Your task to perform on an android device: turn on sleep mode Image 0: 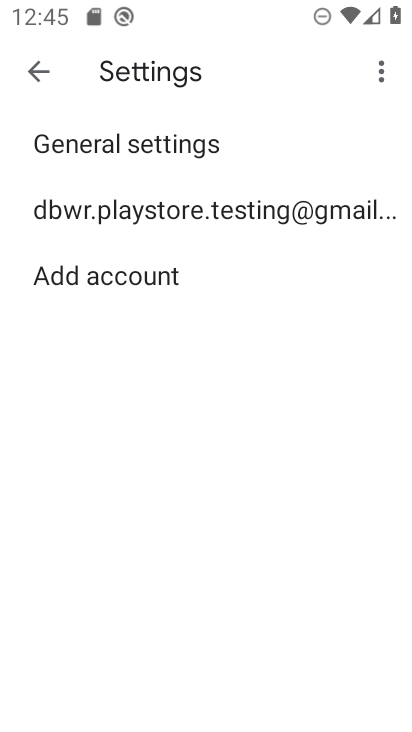
Step 0: press home button
Your task to perform on an android device: turn on sleep mode Image 1: 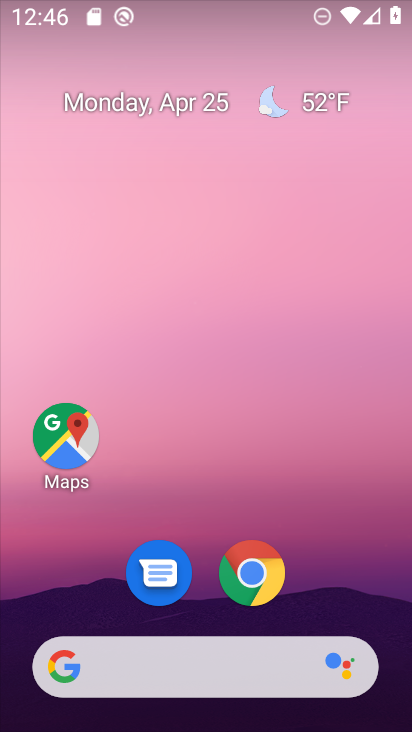
Step 1: drag from (232, 723) to (226, 96)
Your task to perform on an android device: turn on sleep mode Image 2: 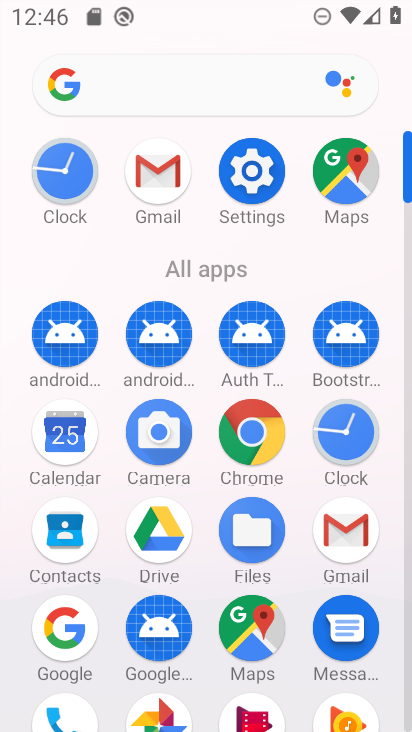
Step 2: click (253, 178)
Your task to perform on an android device: turn on sleep mode Image 3: 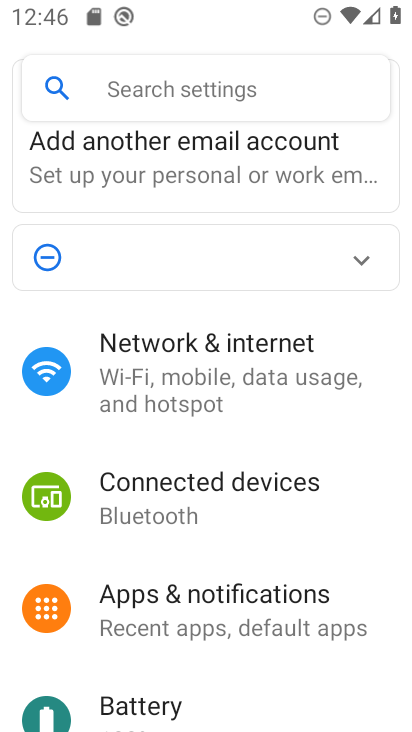
Step 3: drag from (232, 678) to (239, 180)
Your task to perform on an android device: turn on sleep mode Image 4: 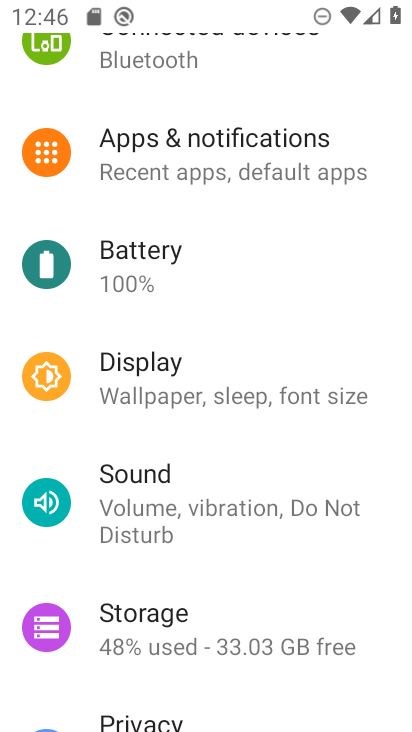
Step 4: drag from (253, 681) to (254, 148)
Your task to perform on an android device: turn on sleep mode Image 5: 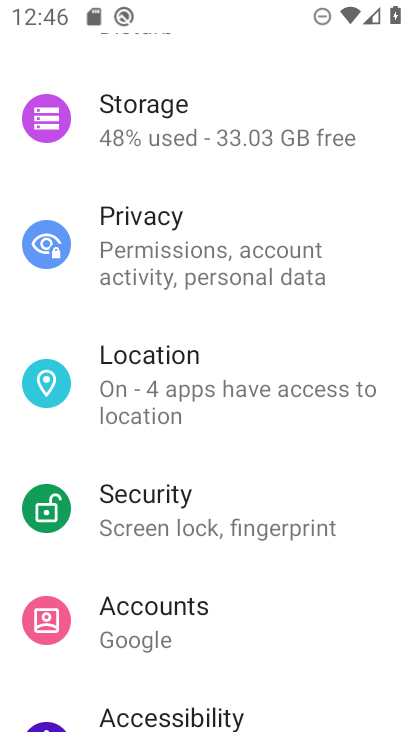
Step 5: drag from (249, 689) to (250, 175)
Your task to perform on an android device: turn on sleep mode Image 6: 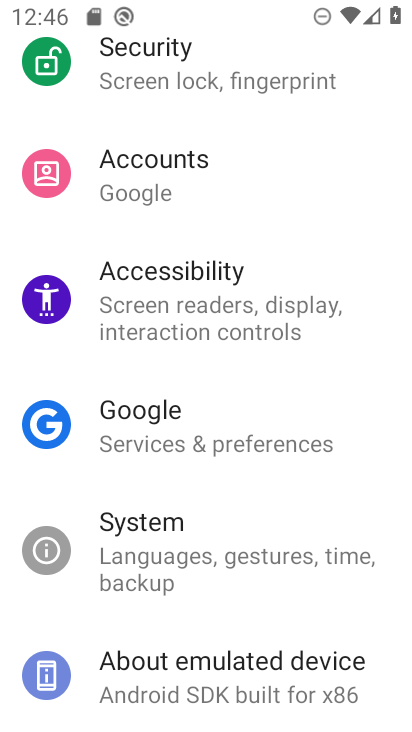
Step 6: drag from (235, 60) to (273, 536)
Your task to perform on an android device: turn on sleep mode Image 7: 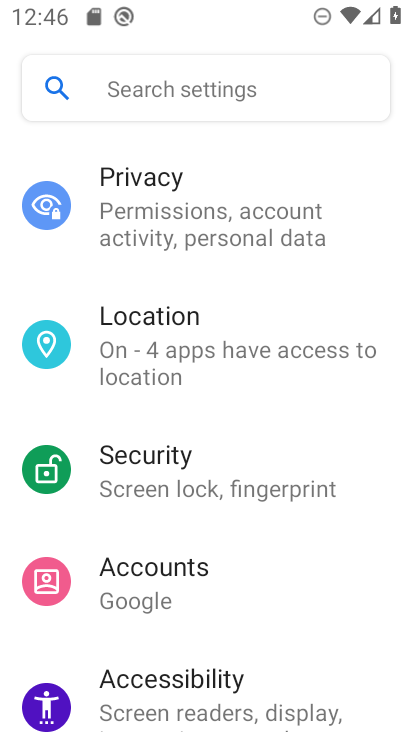
Step 7: drag from (237, 146) to (251, 608)
Your task to perform on an android device: turn on sleep mode Image 8: 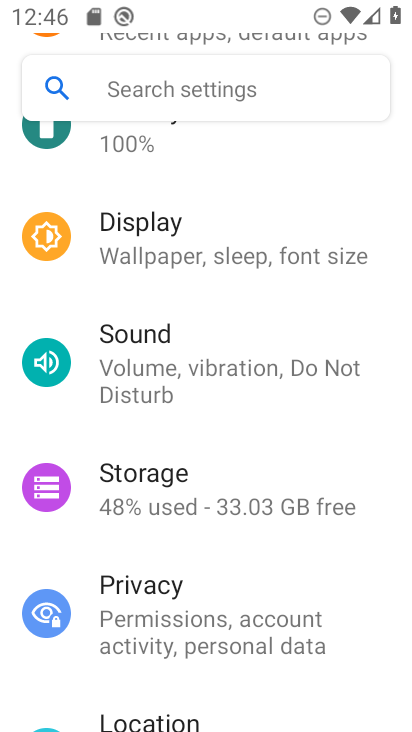
Step 8: click (199, 254)
Your task to perform on an android device: turn on sleep mode Image 9: 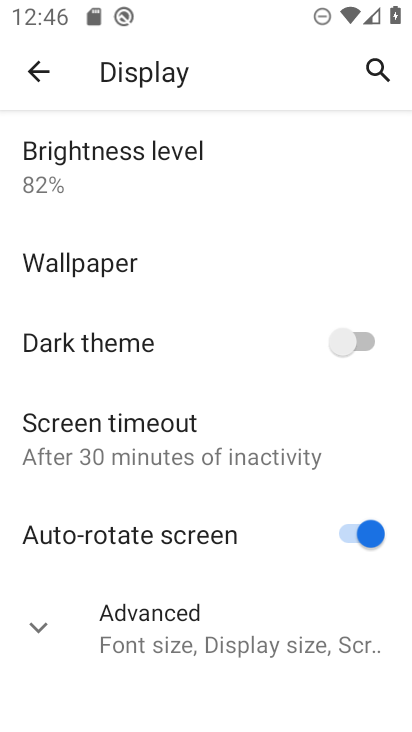
Step 9: task complete